Your task to perform on an android device: Open network settings Image 0: 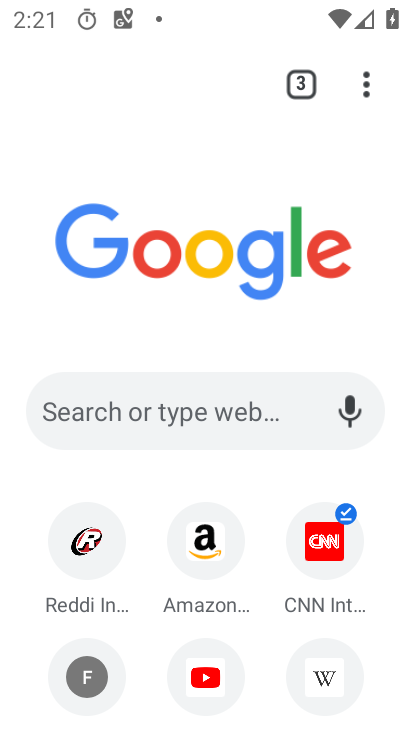
Step 0: press home button
Your task to perform on an android device: Open network settings Image 1: 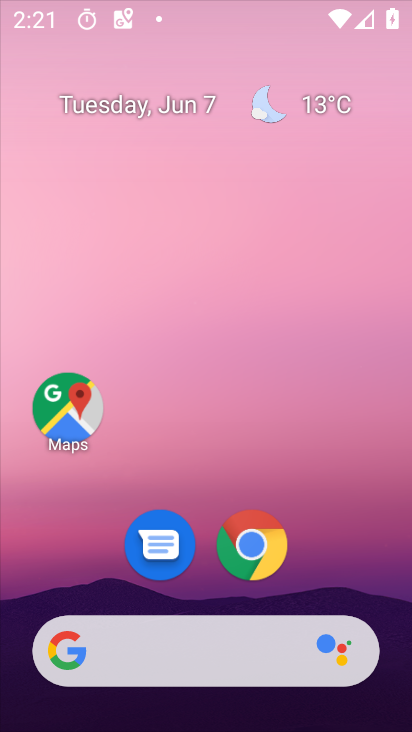
Step 1: drag from (319, 508) to (97, 29)
Your task to perform on an android device: Open network settings Image 2: 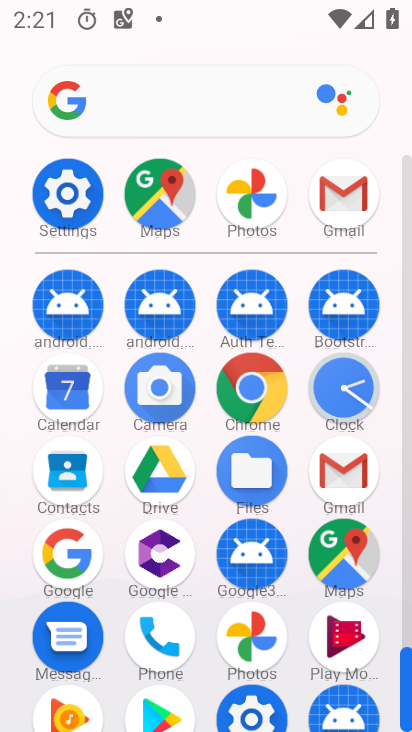
Step 2: click (97, 217)
Your task to perform on an android device: Open network settings Image 3: 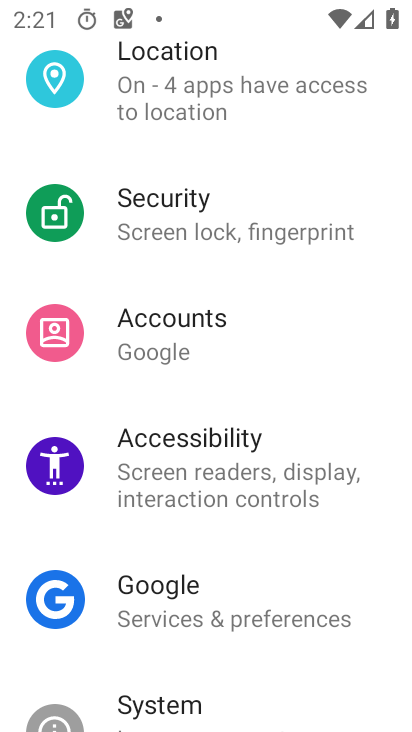
Step 3: drag from (267, 99) to (273, 689)
Your task to perform on an android device: Open network settings Image 4: 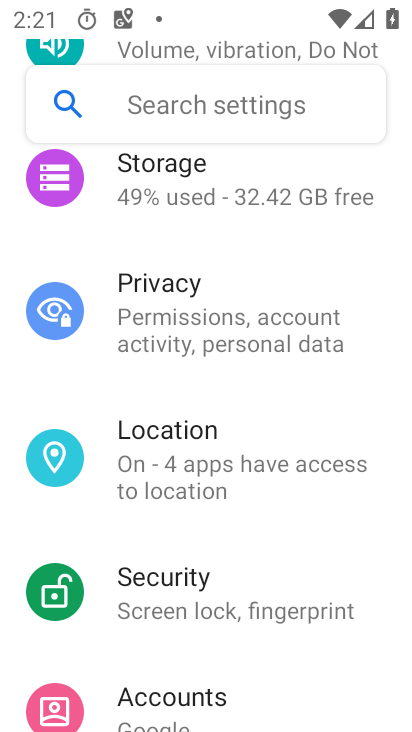
Step 4: drag from (258, 232) to (245, 729)
Your task to perform on an android device: Open network settings Image 5: 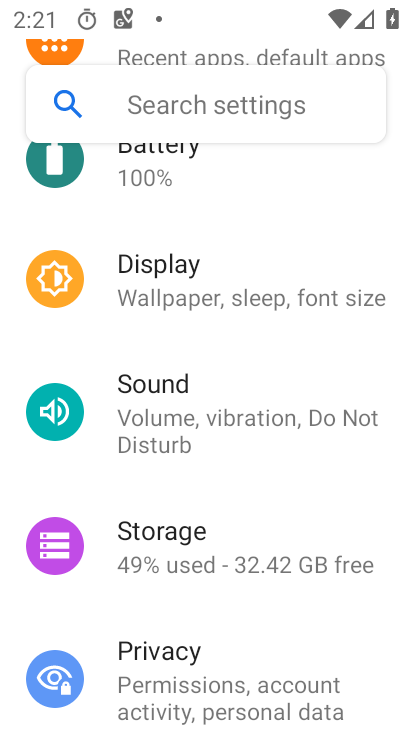
Step 5: drag from (224, 261) to (272, 729)
Your task to perform on an android device: Open network settings Image 6: 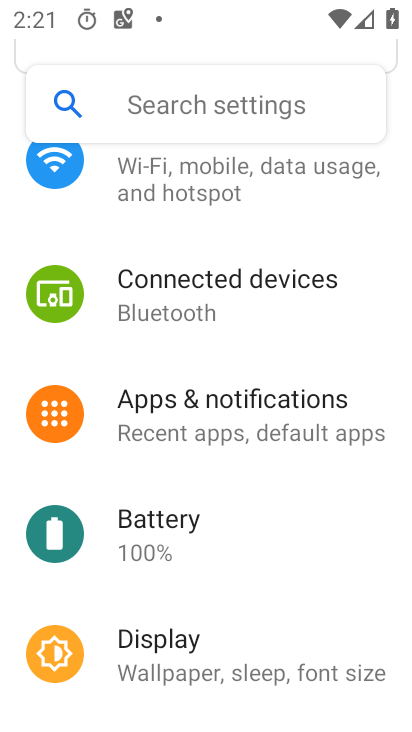
Step 6: click (217, 189)
Your task to perform on an android device: Open network settings Image 7: 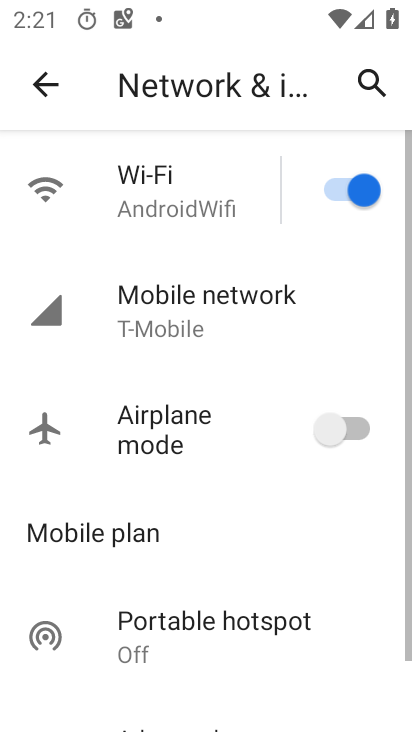
Step 7: task complete